Your task to perform on an android device: Search for Italian restaurants on Maps Image 0: 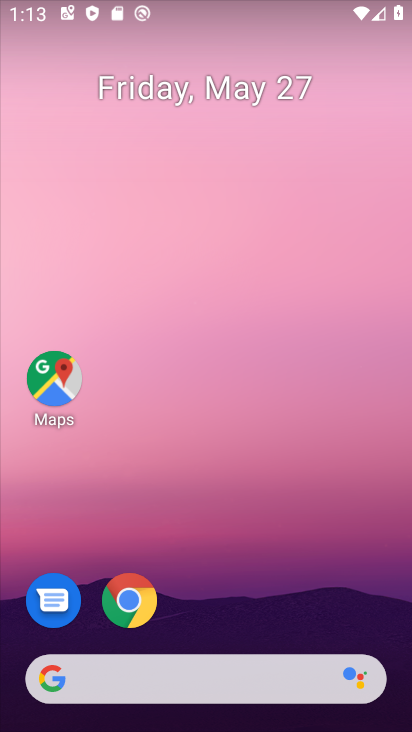
Step 0: drag from (240, 728) to (167, 98)
Your task to perform on an android device: Search for Italian restaurants on Maps Image 1: 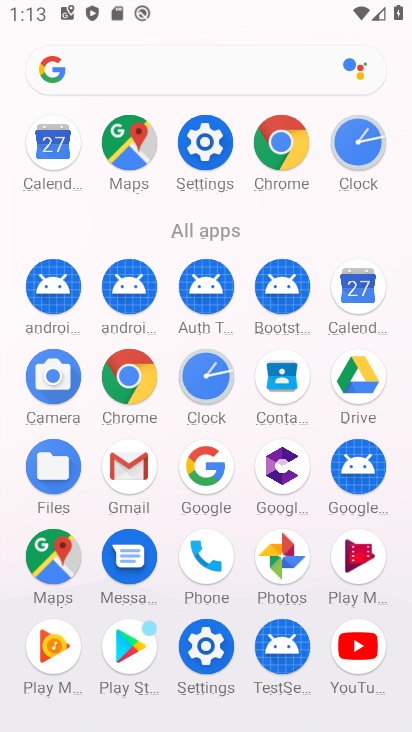
Step 1: click (64, 551)
Your task to perform on an android device: Search for Italian restaurants on Maps Image 2: 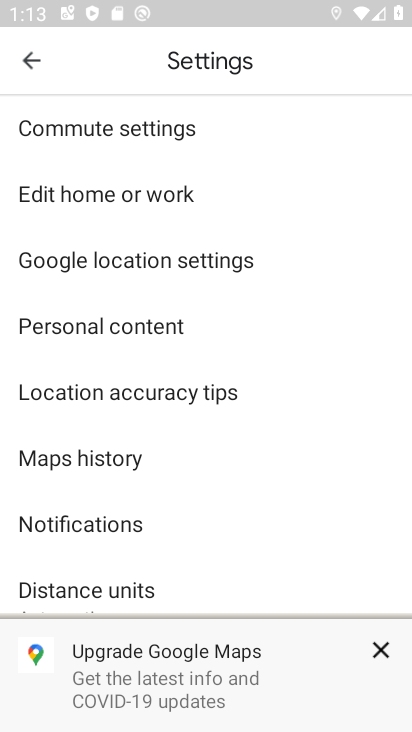
Step 2: click (39, 58)
Your task to perform on an android device: Search for Italian restaurants on Maps Image 3: 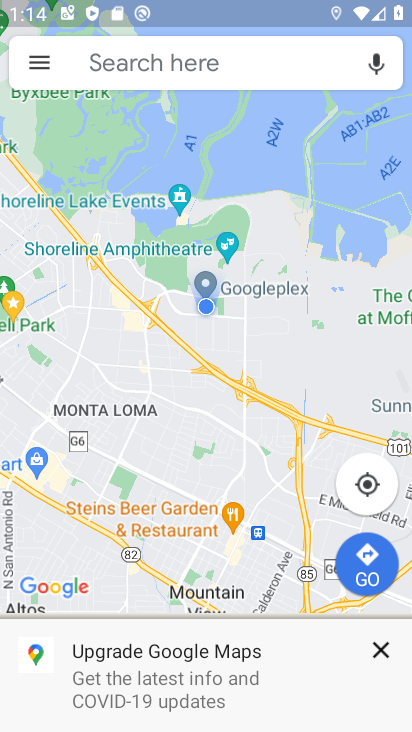
Step 3: click (152, 63)
Your task to perform on an android device: Search for Italian restaurants on Maps Image 4: 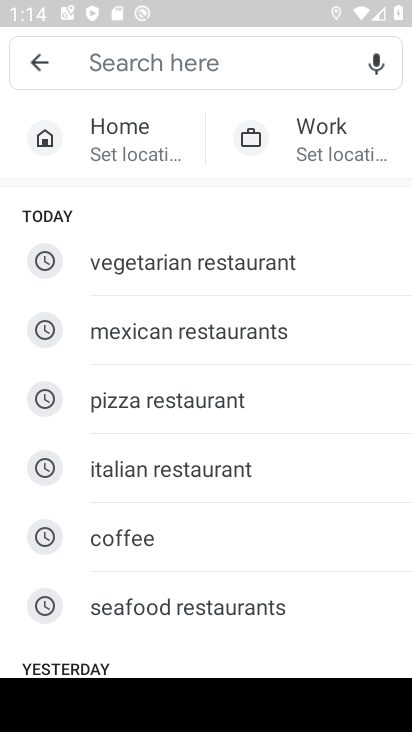
Step 4: type "italian restaurants"
Your task to perform on an android device: Search for Italian restaurants on Maps Image 5: 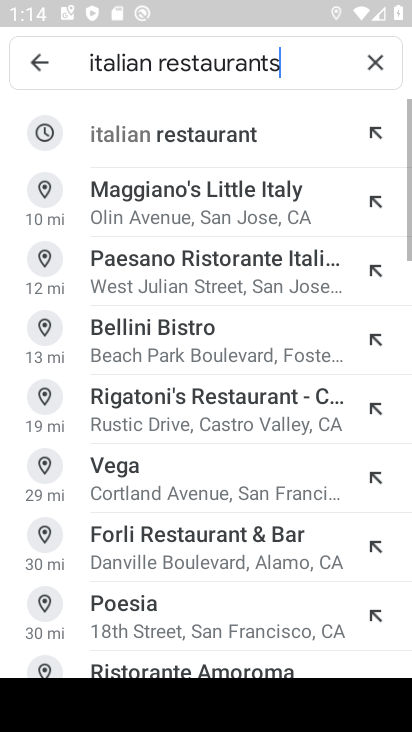
Step 5: click (143, 133)
Your task to perform on an android device: Search for Italian restaurants on Maps Image 6: 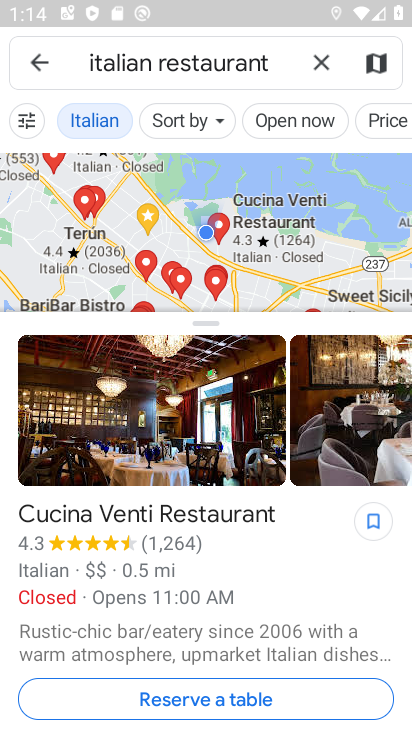
Step 6: task complete